Your task to perform on an android device: toggle notification dots Image 0: 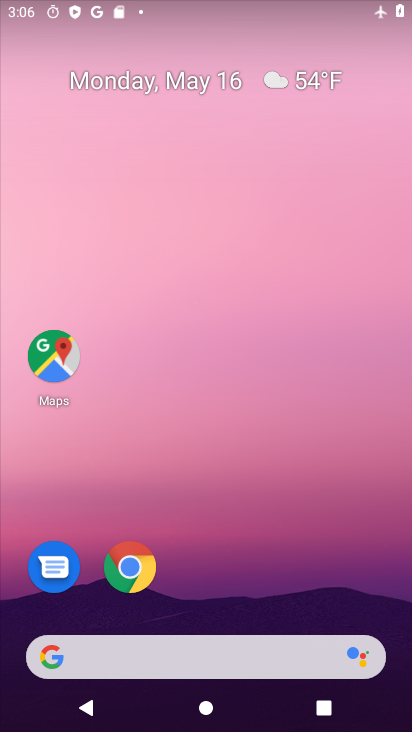
Step 0: drag from (261, 594) to (230, 7)
Your task to perform on an android device: toggle notification dots Image 1: 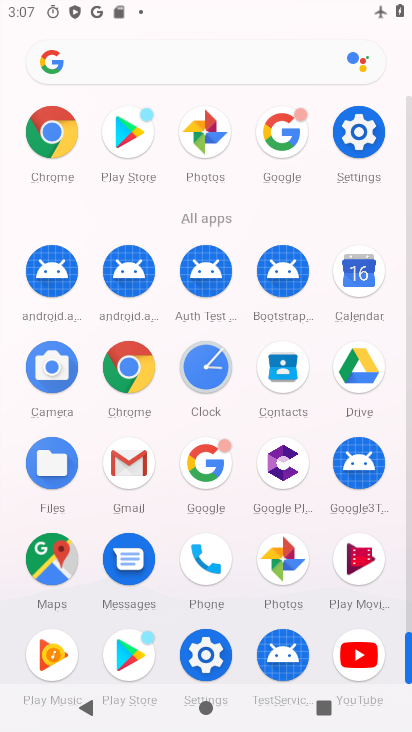
Step 1: click (360, 129)
Your task to perform on an android device: toggle notification dots Image 2: 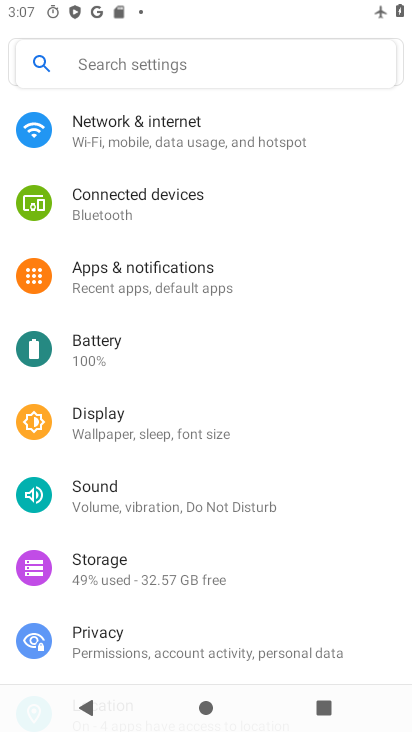
Step 2: click (147, 278)
Your task to perform on an android device: toggle notification dots Image 3: 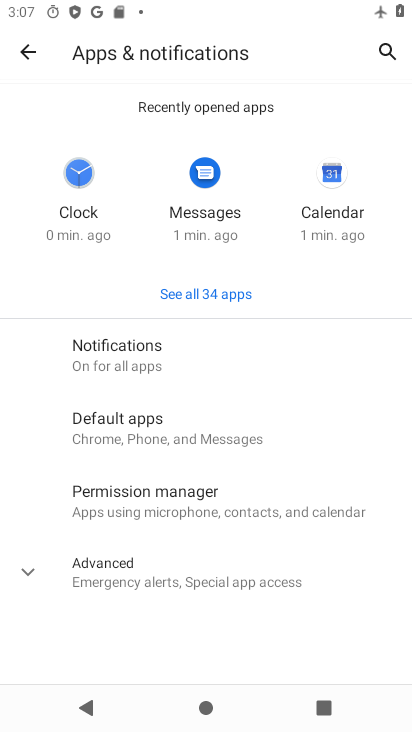
Step 3: click (119, 352)
Your task to perform on an android device: toggle notification dots Image 4: 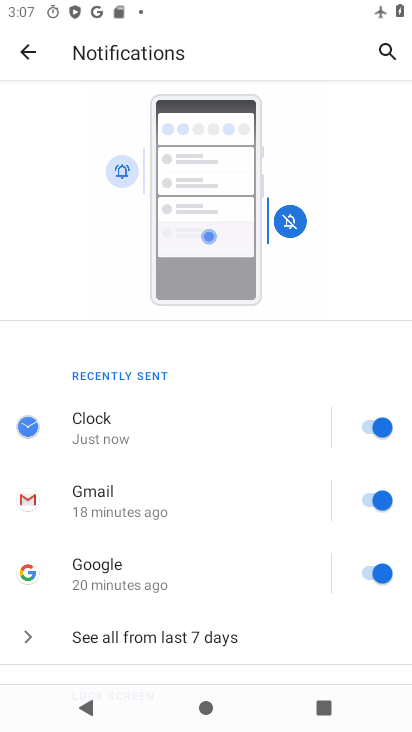
Step 4: drag from (206, 535) to (255, 413)
Your task to perform on an android device: toggle notification dots Image 5: 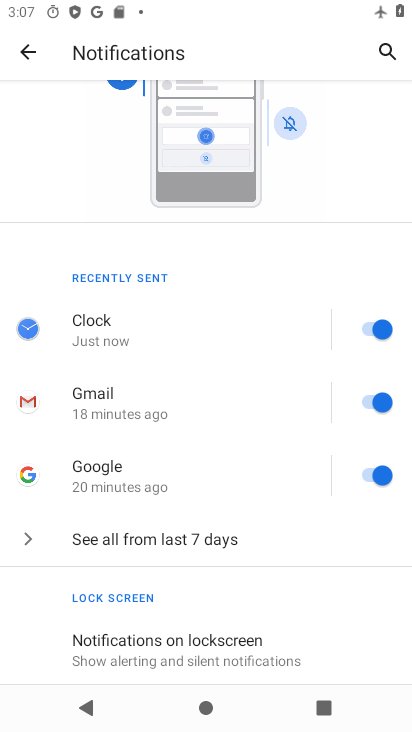
Step 5: drag from (208, 566) to (278, 468)
Your task to perform on an android device: toggle notification dots Image 6: 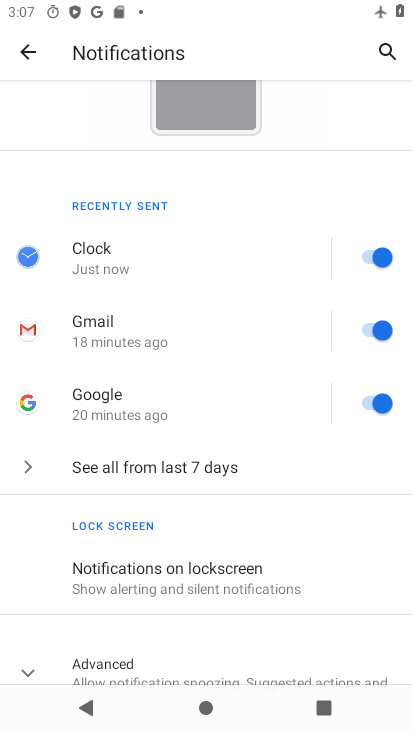
Step 6: drag from (232, 587) to (294, 480)
Your task to perform on an android device: toggle notification dots Image 7: 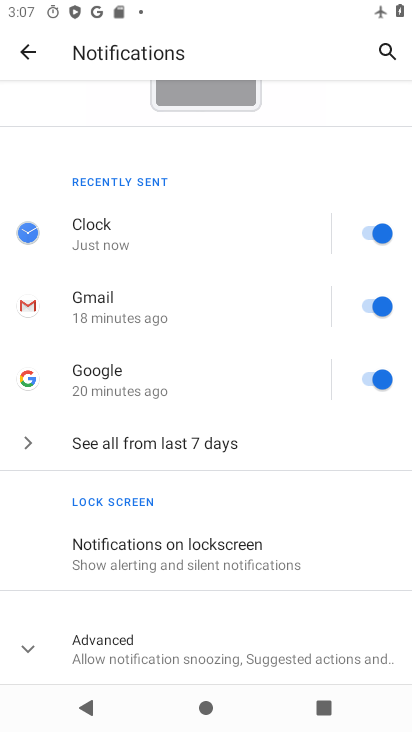
Step 7: click (181, 648)
Your task to perform on an android device: toggle notification dots Image 8: 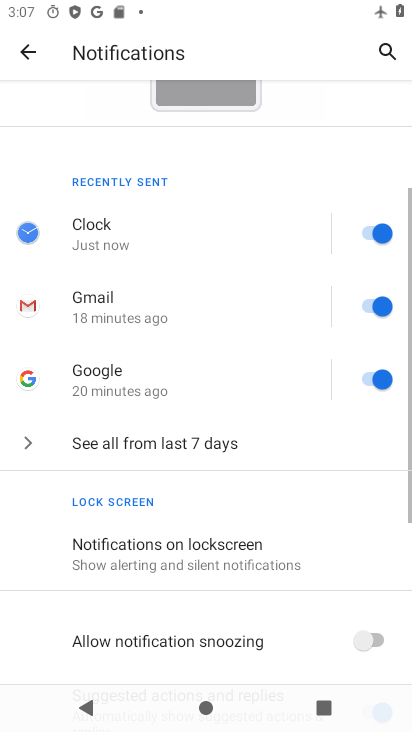
Step 8: drag from (175, 648) to (245, 476)
Your task to perform on an android device: toggle notification dots Image 9: 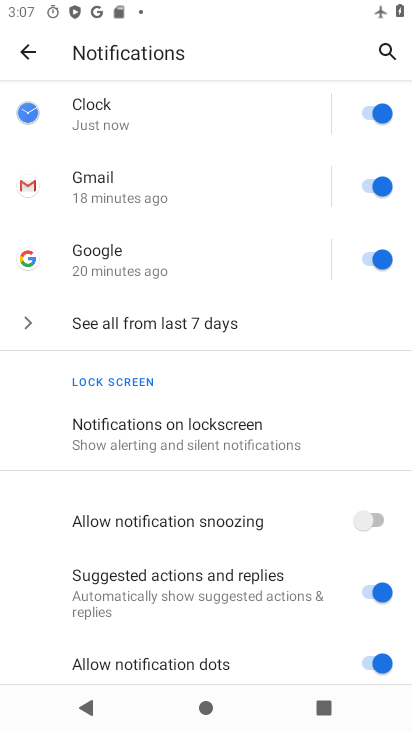
Step 9: drag from (233, 602) to (253, 509)
Your task to perform on an android device: toggle notification dots Image 10: 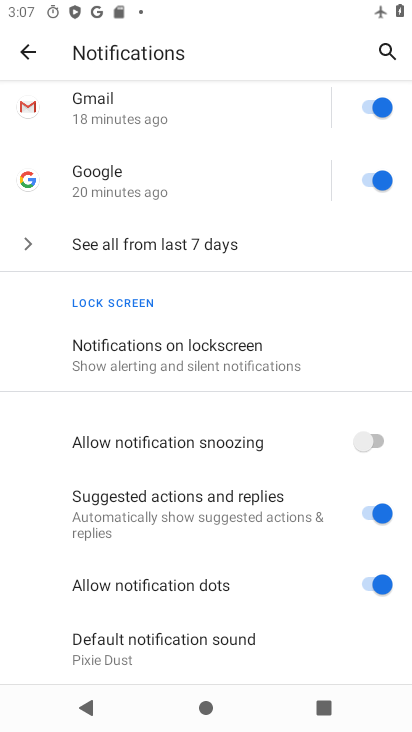
Step 10: click (375, 573)
Your task to perform on an android device: toggle notification dots Image 11: 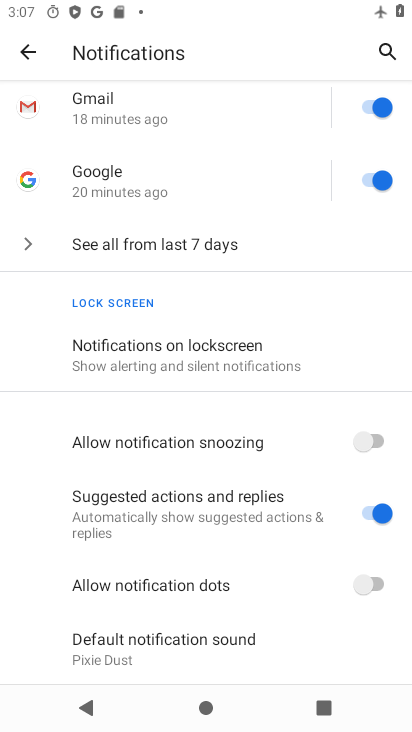
Step 11: task complete